Your task to perform on an android device: Open the Play Movies app and select the watchlist tab. Image 0: 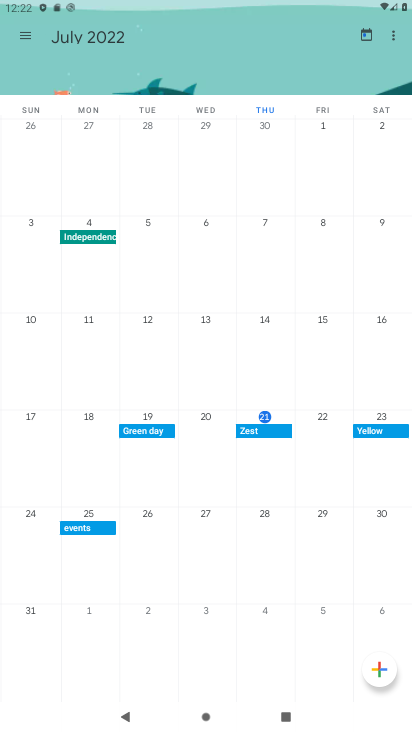
Step 0: press home button
Your task to perform on an android device: Open the Play Movies app and select the watchlist tab. Image 1: 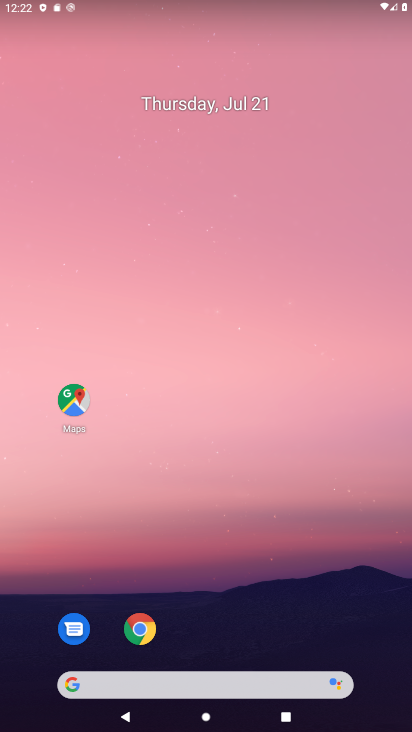
Step 1: drag from (281, 617) to (252, 185)
Your task to perform on an android device: Open the Play Movies app and select the watchlist tab. Image 2: 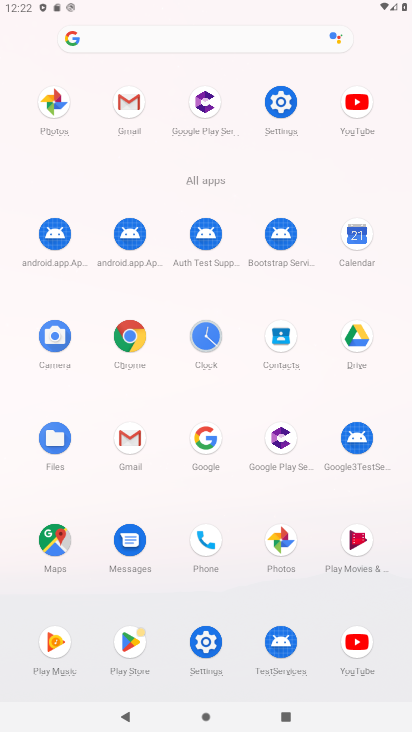
Step 2: click (359, 546)
Your task to perform on an android device: Open the Play Movies app and select the watchlist tab. Image 3: 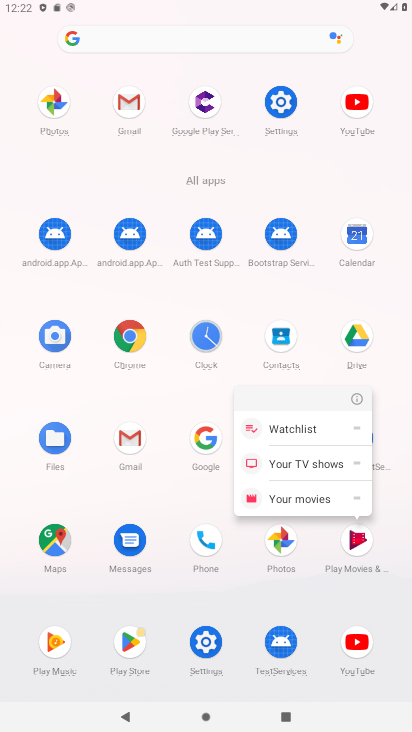
Step 3: click (357, 543)
Your task to perform on an android device: Open the Play Movies app and select the watchlist tab. Image 4: 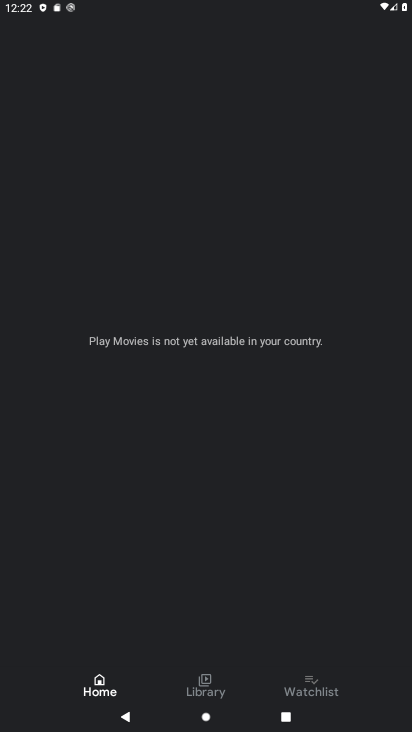
Step 4: click (317, 684)
Your task to perform on an android device: Open the Play Movies app and select the watchlist tab. Image 5: 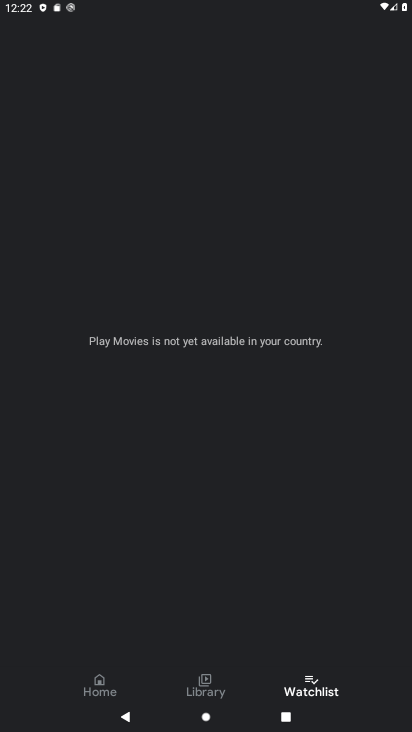
Step 5: task complete